Your task to perform on an android device: Open the calendar and show me this week's events? Image 0: 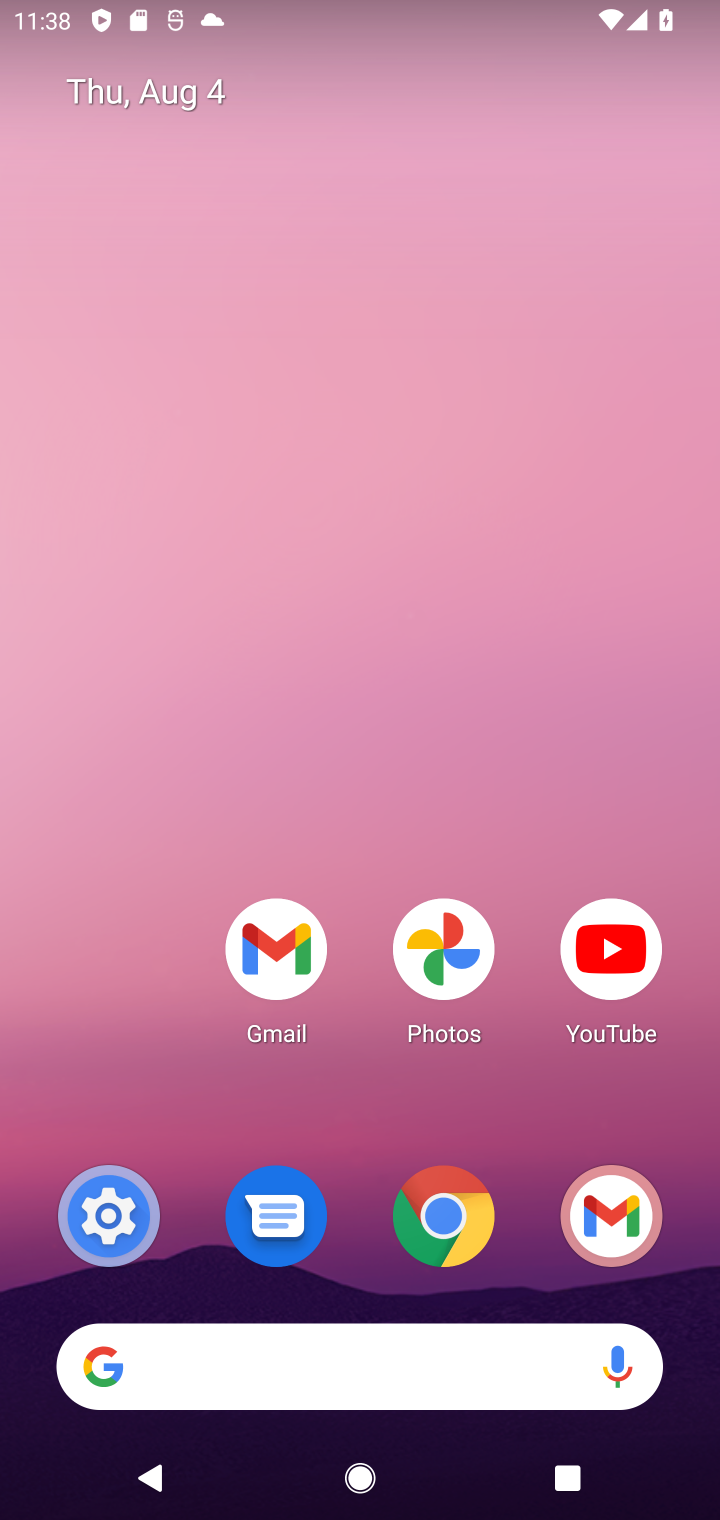
Step 0: drag from (310, 1382) to (396, 61)
Your task to perform on an android device: Open the calendar and show me this week's events? Image 1: 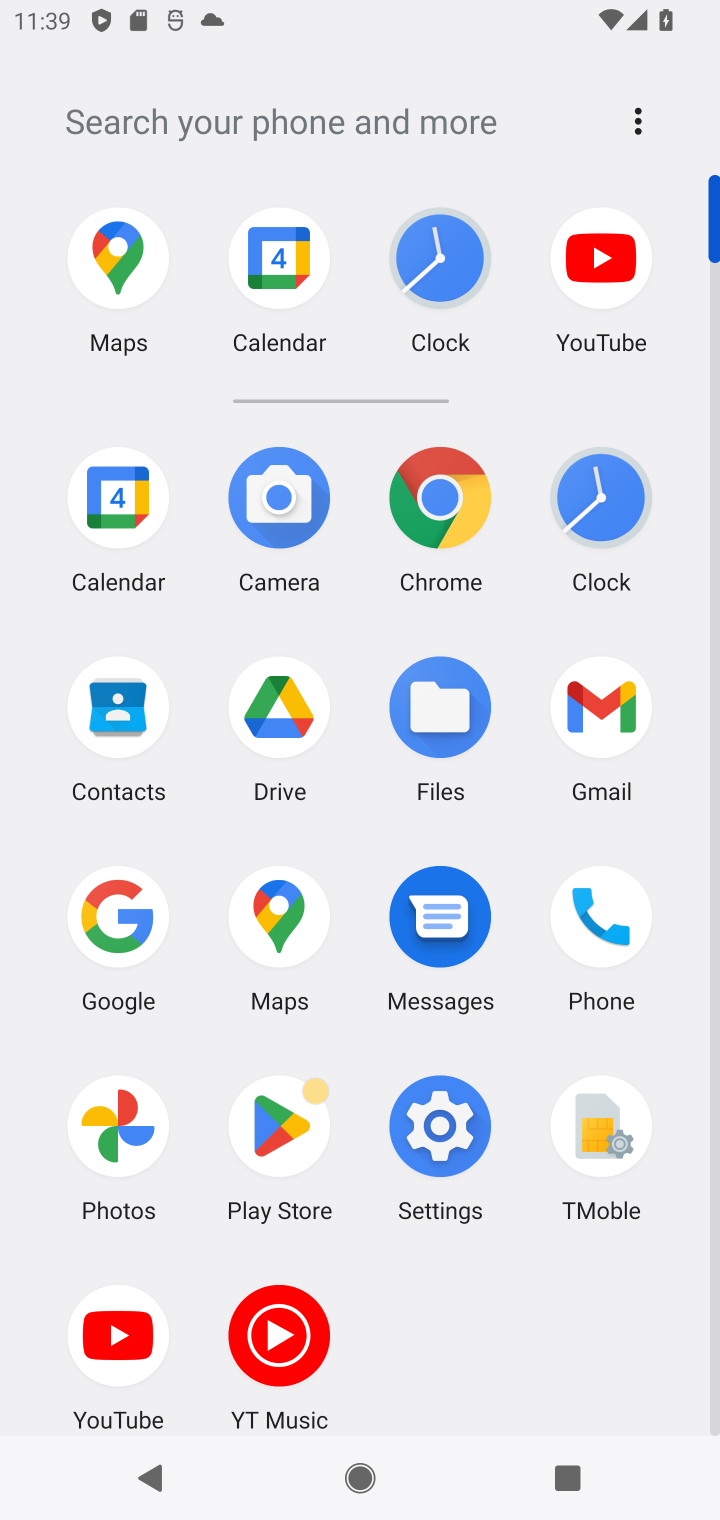
Step 1: click (120, 495)
Your task to perform on an android device: Open the calendar and show me this week's events? Image 2: 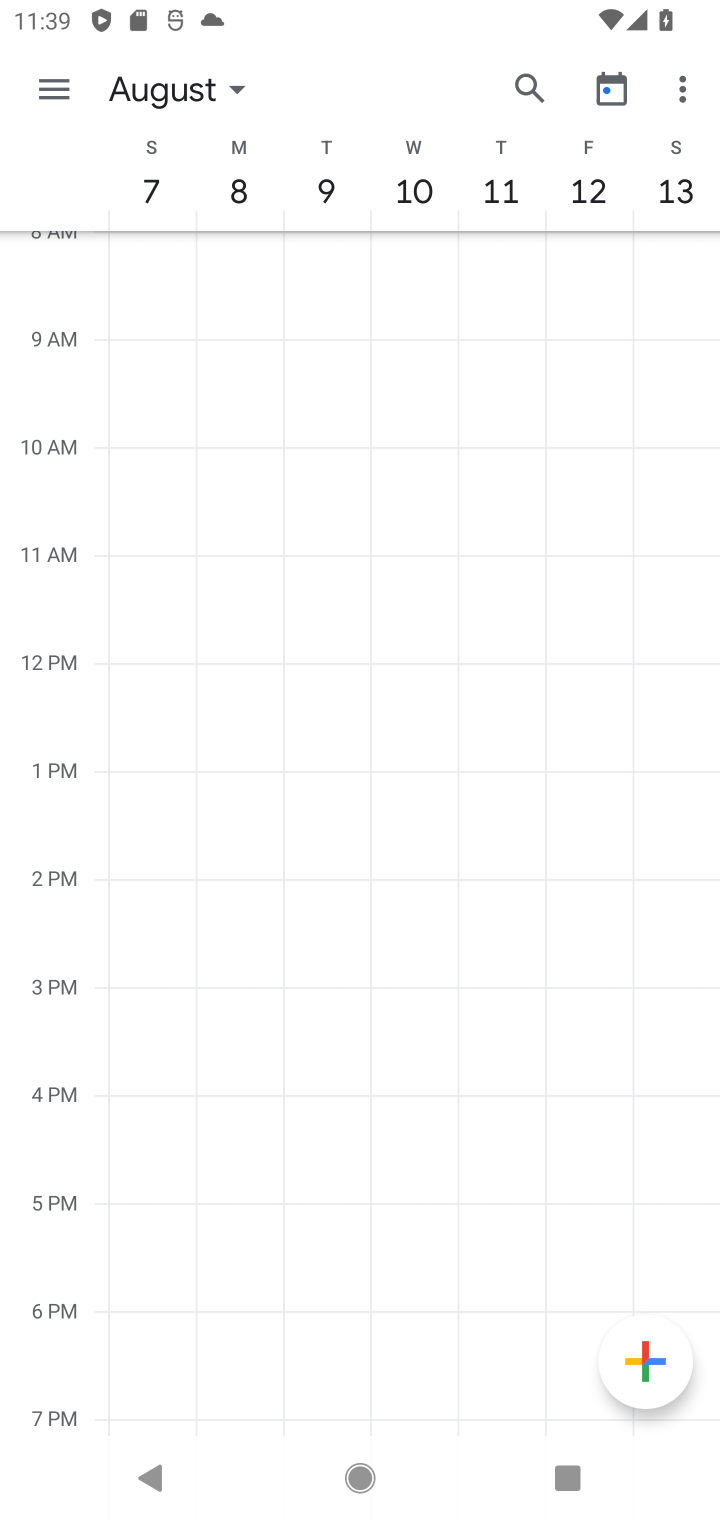
Step 2: click (609, 93)
Your task to perform on an android device: Open the calendar and show me this week's events? Image 3: 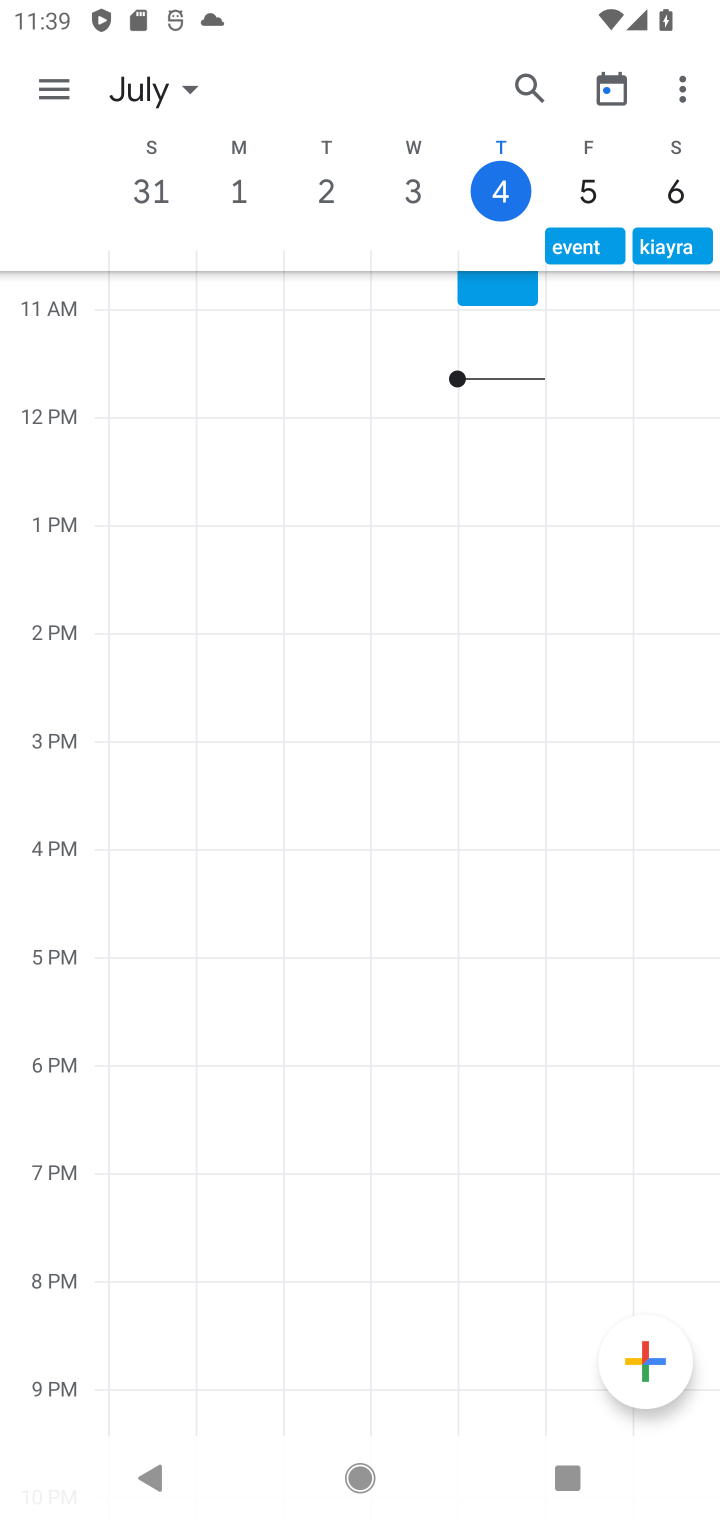
Step 3: click (48, 88)
Your task to perform on an android device: Open the calendar and show me this week's events? Image 4: 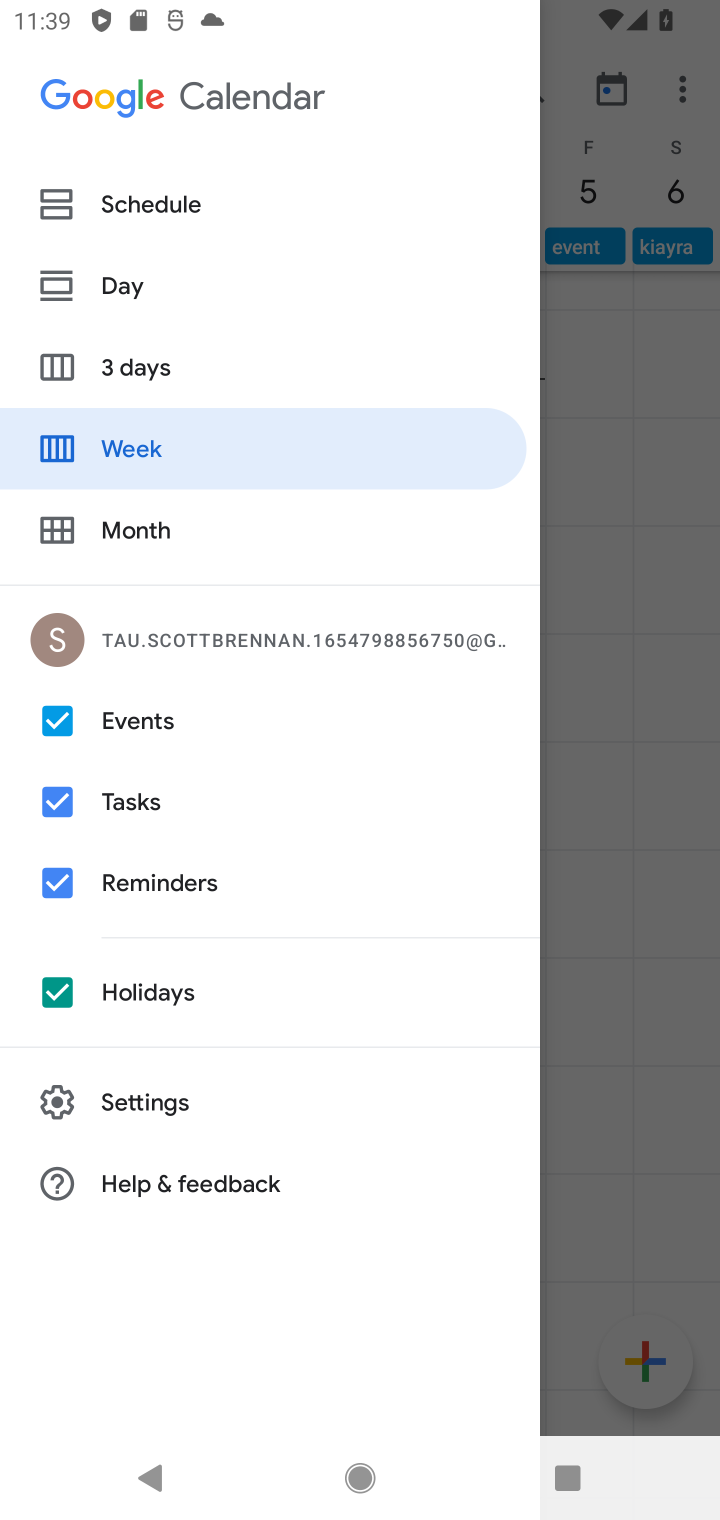
Step 4: click (172, 232)
Your task to perform on an android device: Open the calendar and show me this week's events? Image 5: 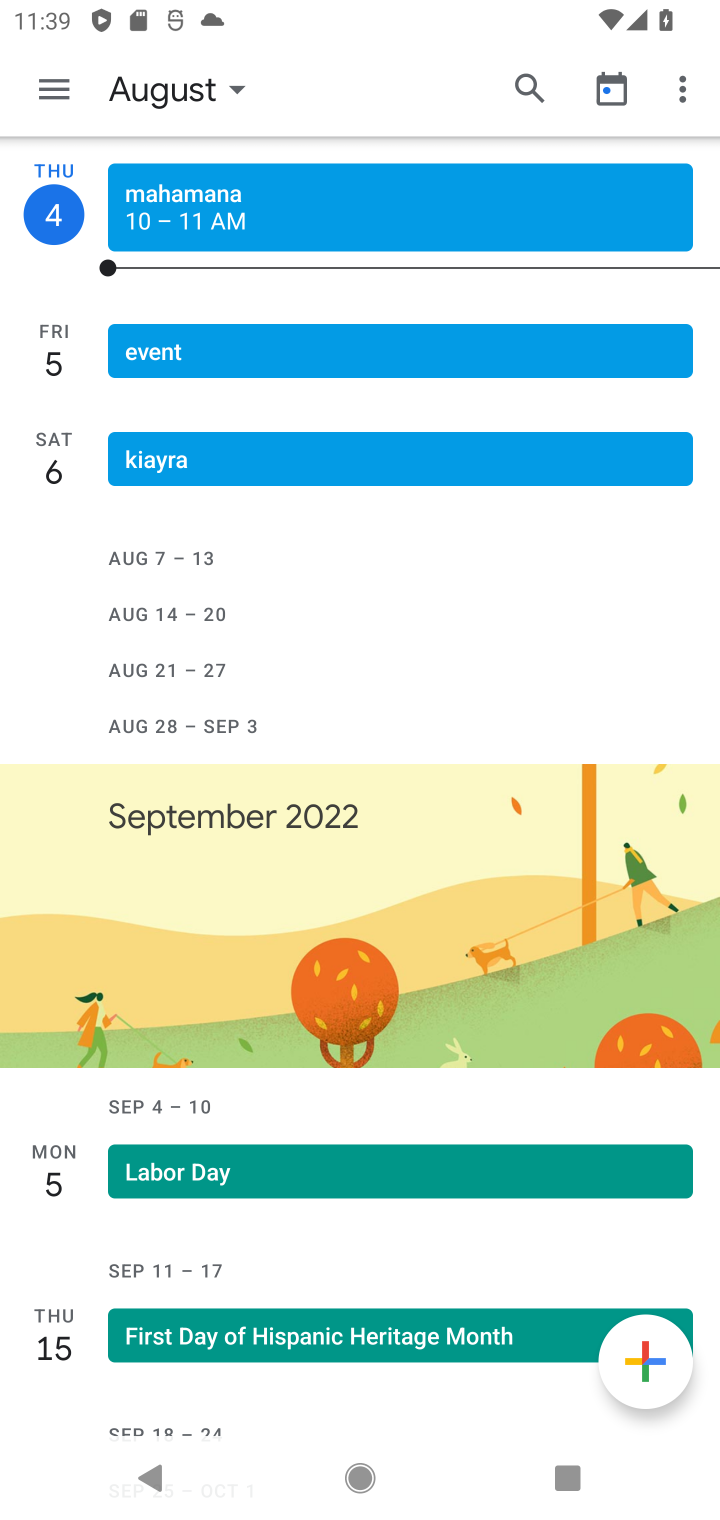
Step 5: task complete